Your task to perform on an android device: Is it going to rain tomorrow? Image 0: 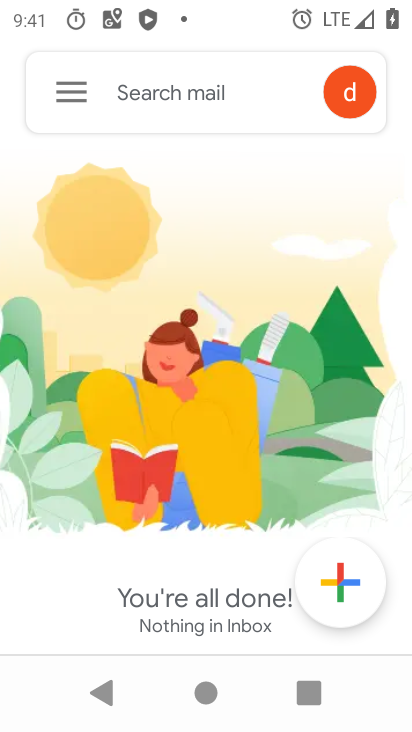
Step 0: press home button
Your task to perform on an android device: Is it going to rain tomorrow? Image 1: 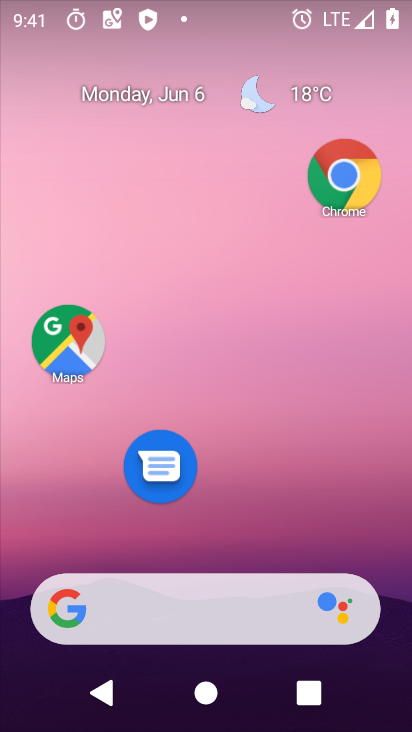
Step 1: click (244, 597)
Your task to perform on an android device: Is it going to rain tomorrow? Image 2: 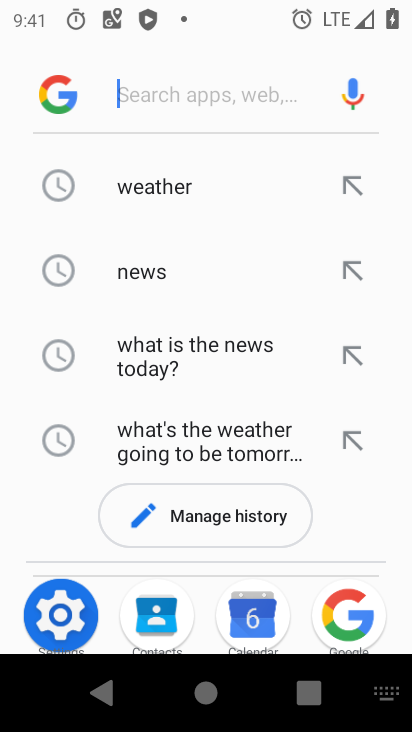
Step 2: click (349, 731)
Your task to perform on an android device: Is it going to rain tomorrow? Image 3: 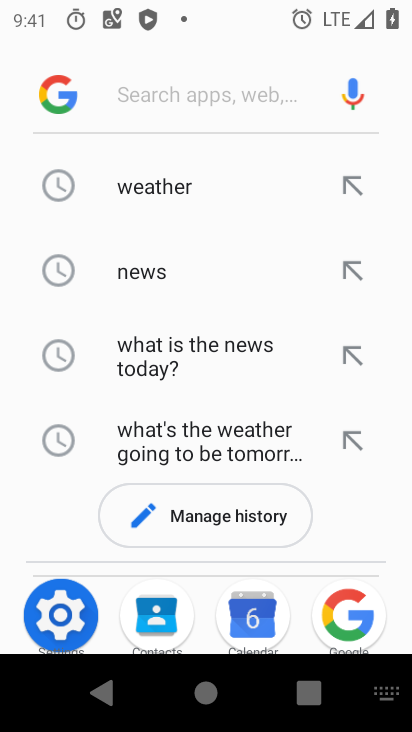
Step 3: type " rain tomorrow?"
Your task to perform on an android device: Is it going to rain tomorrow? Image 4: 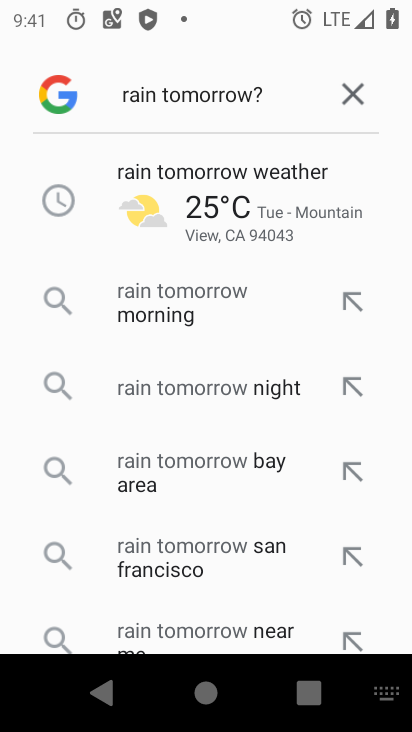
Step 4: click (175, 178)
Your task to perform on an android device: Is it going to rain tomorrow? Image 5: 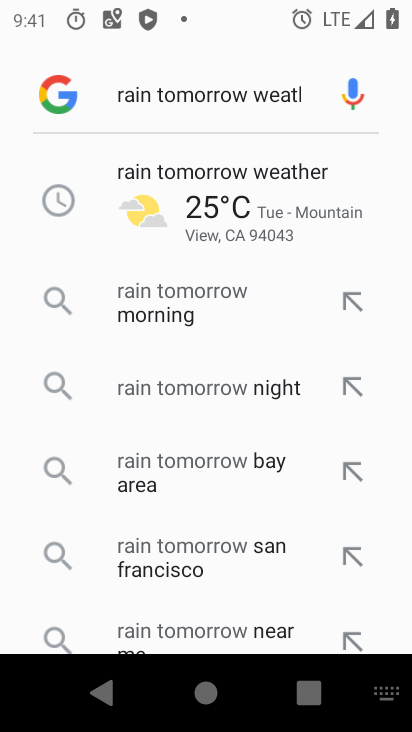
Step 5: task complete